Your task to perform on an android device: Open eBay Image 0: 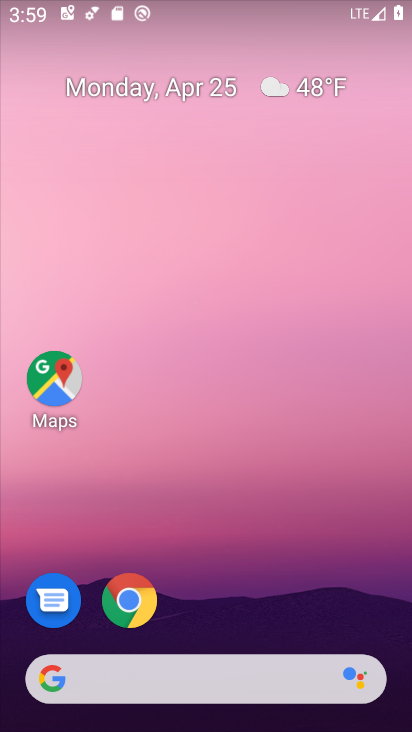
Step 0: drag from (215, 626) to (207, 67)
Your task to perform on an android device: Open eBay Image 1: 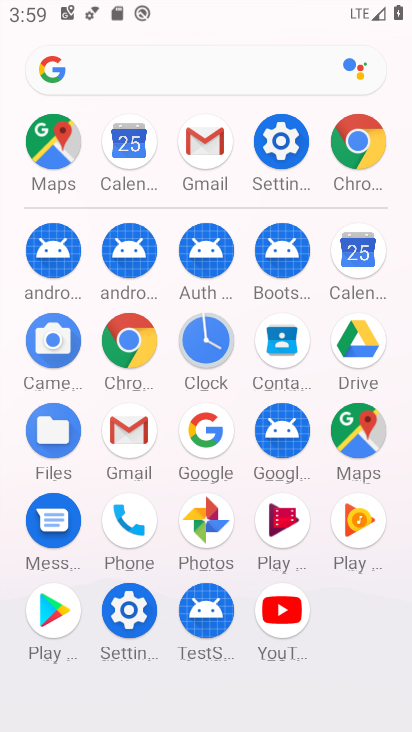
Step 1: click (357, 137)
Your task to perform on an android device: Open eBay Image 2: 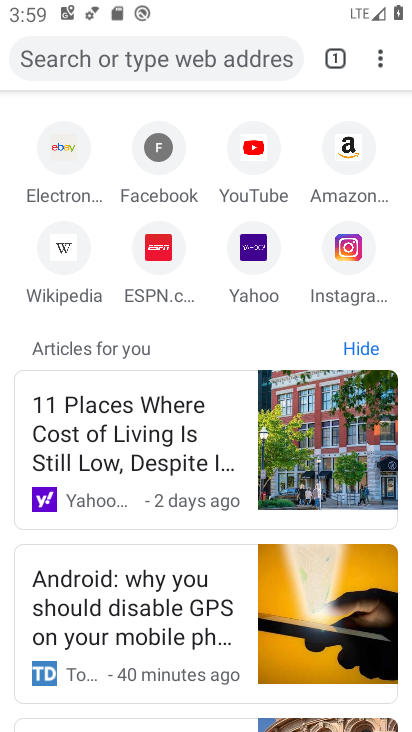
Step 2: click (221, 52)
Your task to perform on an android device: Open eBay Image 3: 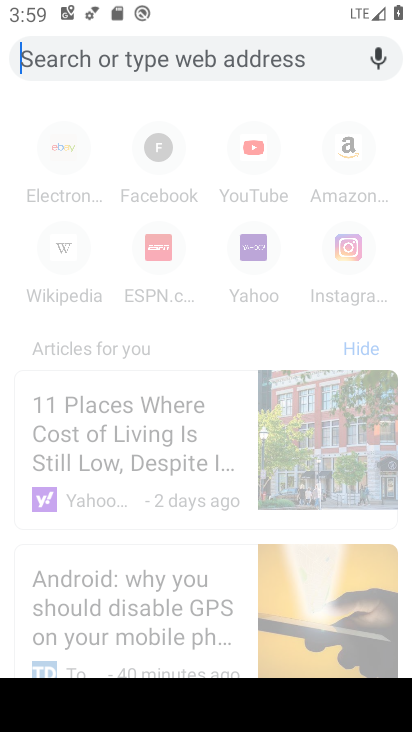
Step 3: type "eBay"
Your task to perform on an android device: Open eBay Image 4: 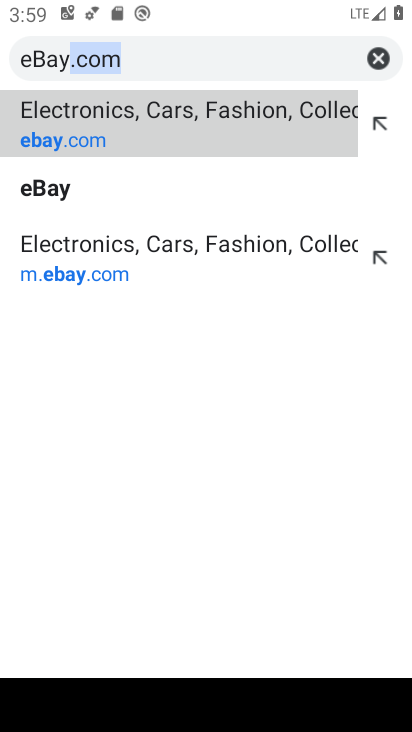
Step 4: type ""
Your task to perform on an android device: Open eBay Image 5: 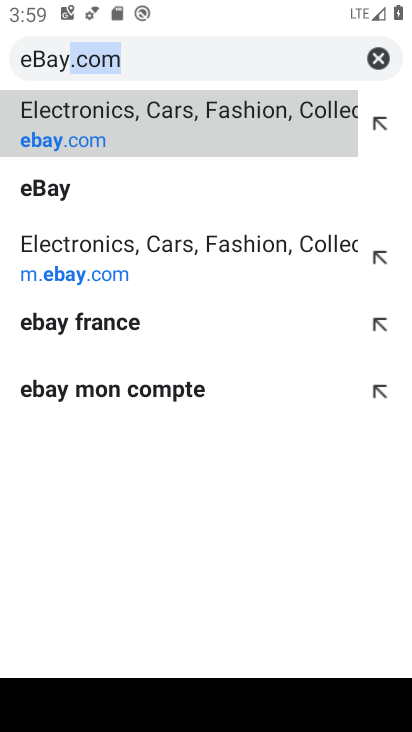
Step 5: click (109, 114)
Your task to perform on an android device: Open eBay Image 6: 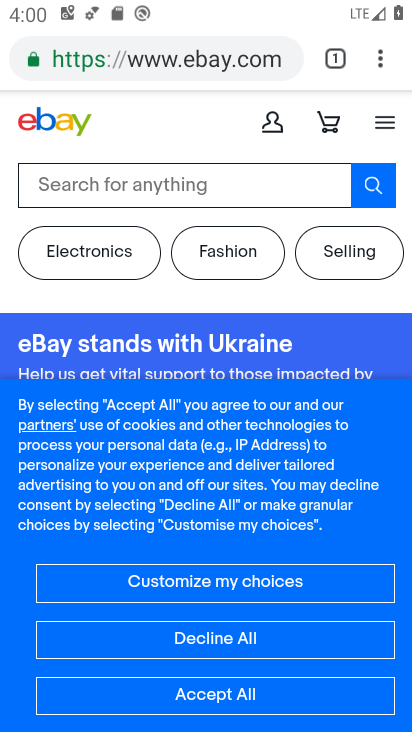
Step 6: task complete